Your task to perform on an android device: change notification settings in the gmail app Image 0: 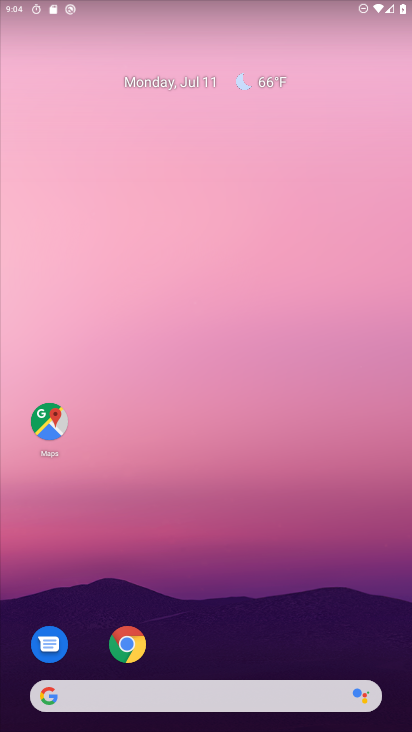
Step 0: drag from (358, 595) to (311, 177)
Your task to perform on an android device: change notification settings in the gmail app Image 1: 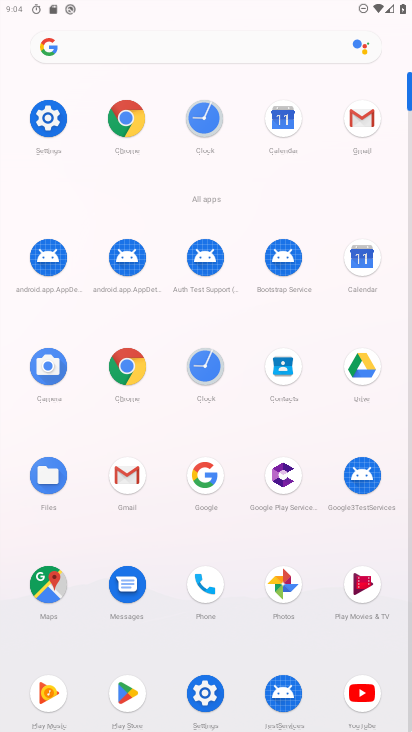
Step 1: click (366, 120)
Your task to perform on an android device: change notification settings in the gmail app Image 2: 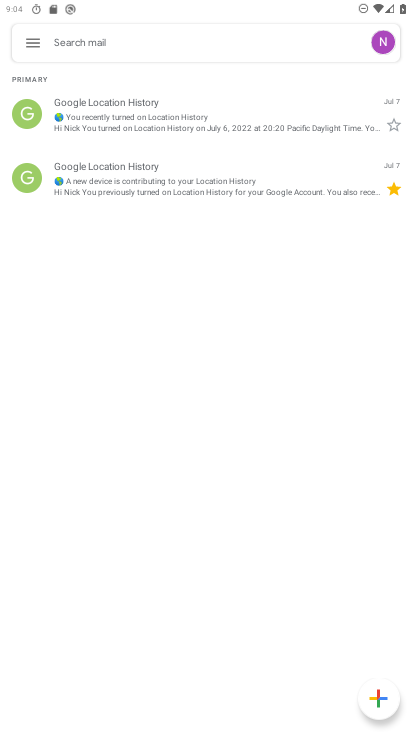
Step 2: click (34, 35)
Your task to perform on an android device: change notification settings in the gmail app Image 3: 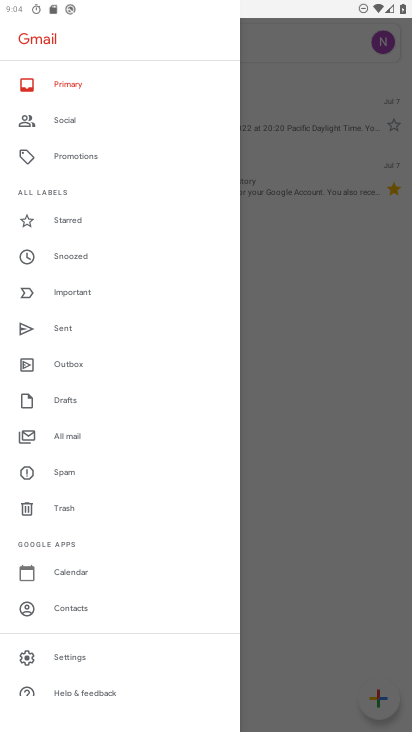
Step 3: click (80, 651)
Your task to perform on an android device: change notification settings in the gmail app Image 4: 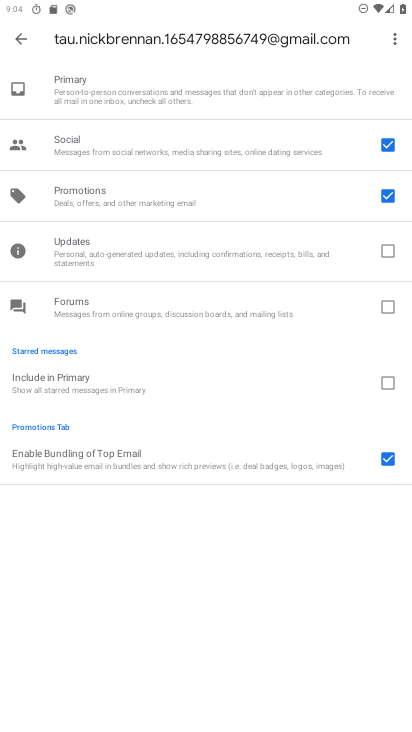
Step 4: click (25, 29)
Your task to perform on an android device: change notification settings in the gmail app Image 5: 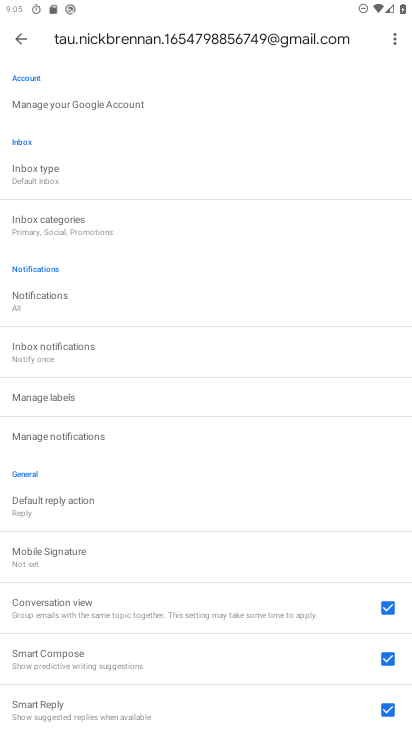
Step 5: click (70, 432)
Your task to perform on an android device: change notification settings in the gmail app Image 6: 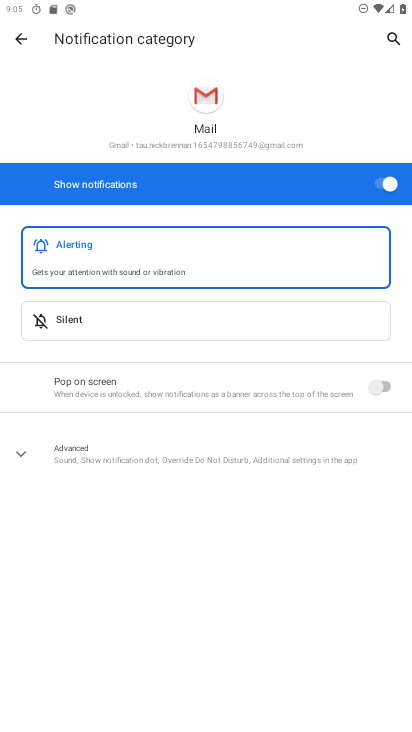
Step 6: click (385, 176)
Your task to perform on an android device: change notification settings in the gmail app Image 7: 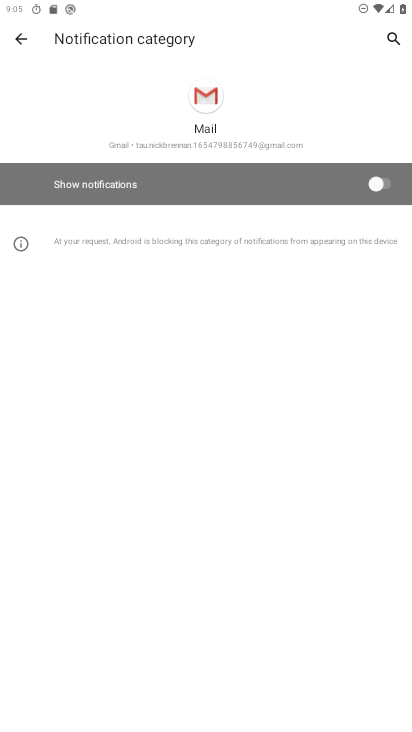
Step 7: task complete